Your task to perform on an android device: toggle notifications settings in the gmail app Image 0: 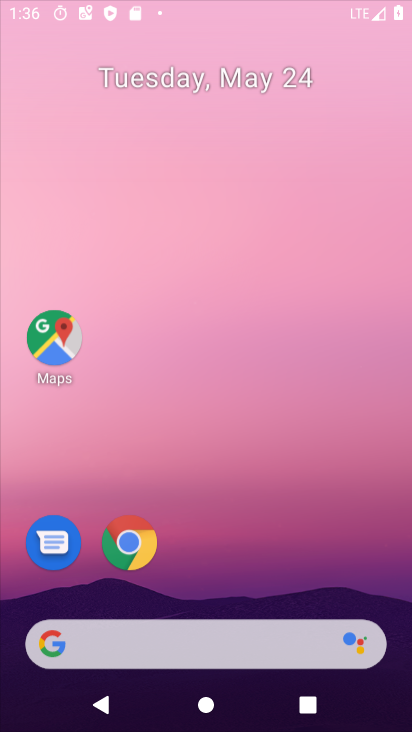
Step 0: drag from (319, 30) to (284, 0)
Your task to perform on an android device: toggle notifications settings in the gmail app Image 1: 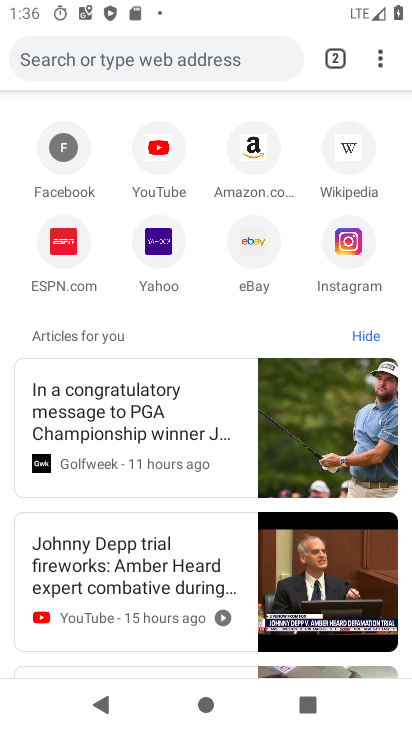
Step 1: press home button
Your task to perform on an android device: toggle notifications settings in the gmail app Image 2: 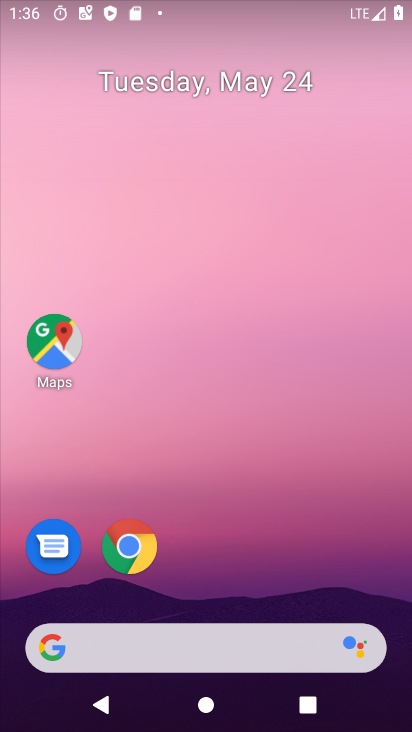
Step 2: drag from (202, 576) to (409, 43)
Your task to perform on an android device: toggle notifications settings in the gmail app Image 3: 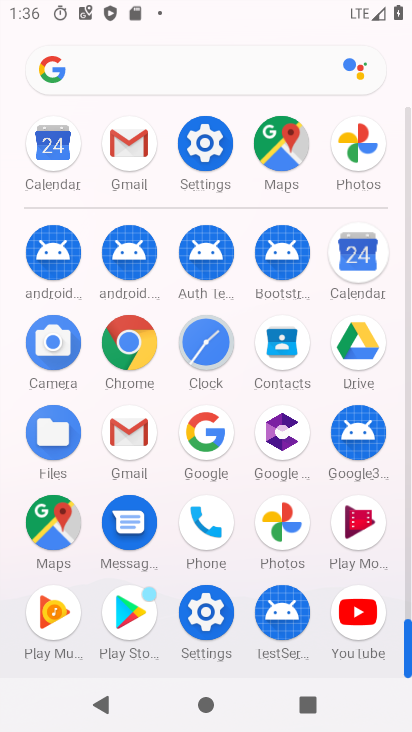
Step 3: click (119, 433)
Your task to perform on an android device: toggle notifications settings in the gmail app Image 4: 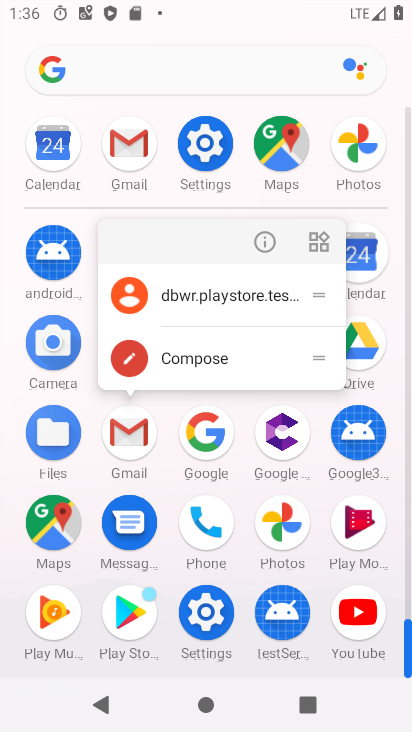
Step 4: click (194, 301)
Your task to perform on an android device: toggle notifications settings in the gmail app Image 5: 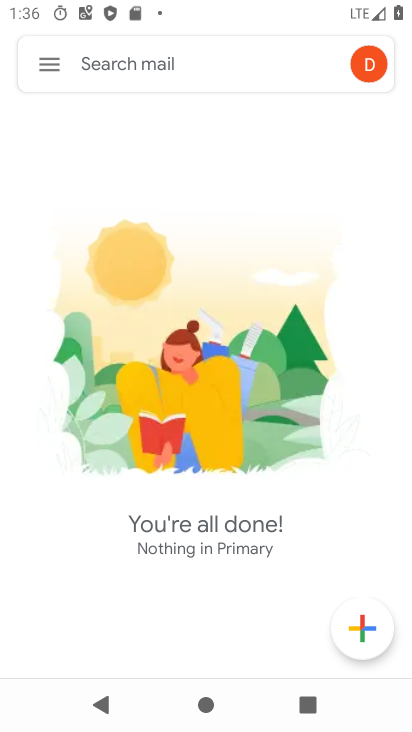
Step 5: click (44, 66)
Your task to perform on an android device: toggle notifications settings in the gmail app Image 6: 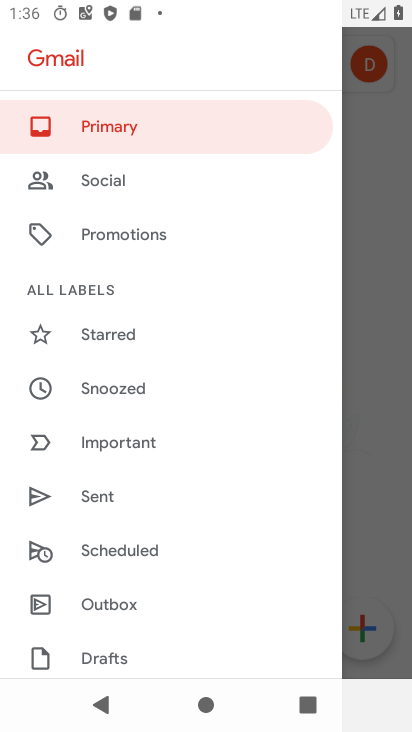
Step 6: drag from (156, 528) to (199, 52)
Your task to perform on an android device: toggle notifications settings in the gmail app Image 7: 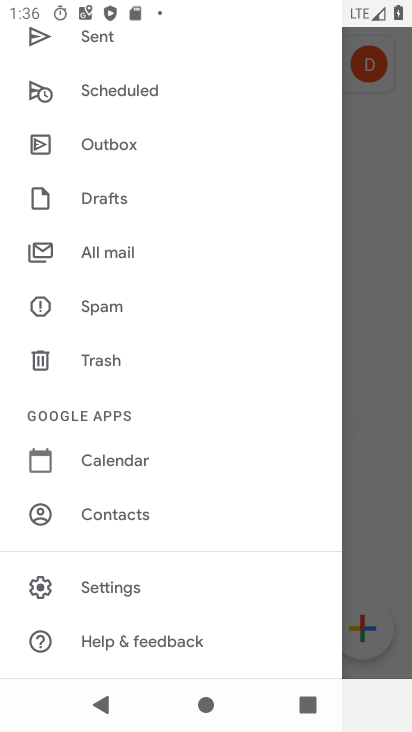
Step 7: click (130, 589)
Your task to perform on an android device: toggle notifications settings in the gmail app Image 8: 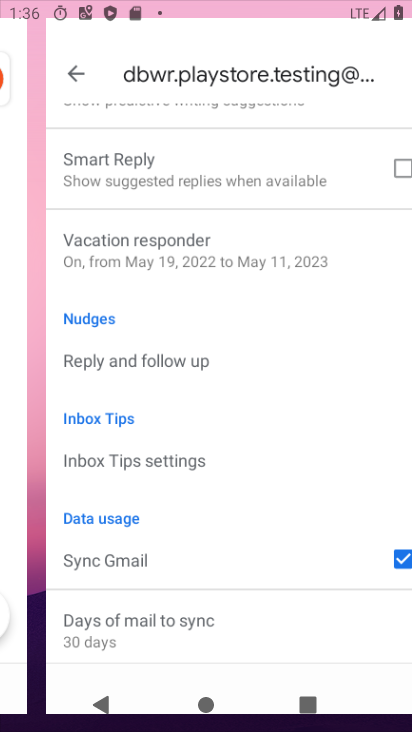
Step 8: drag from (113, 557) to (181, 137)
Your task to perform on an android device: toggle notifications settings in the gmail app Image 9: 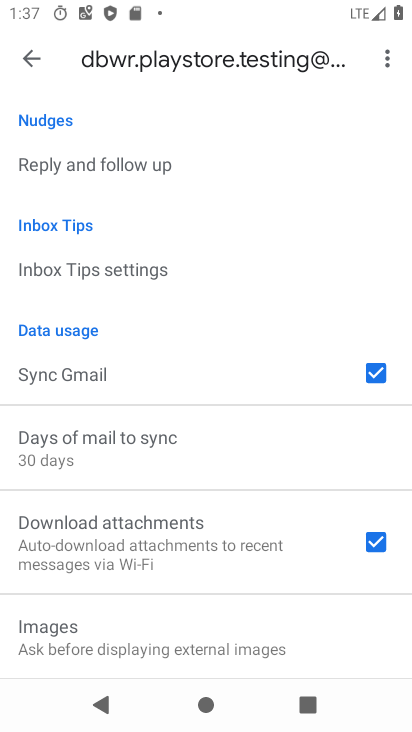
Step 9: drag from (217, 276) to (273, 726)
Your task to perform on an android device: toggle notifications settings in the gmail app Image 10: 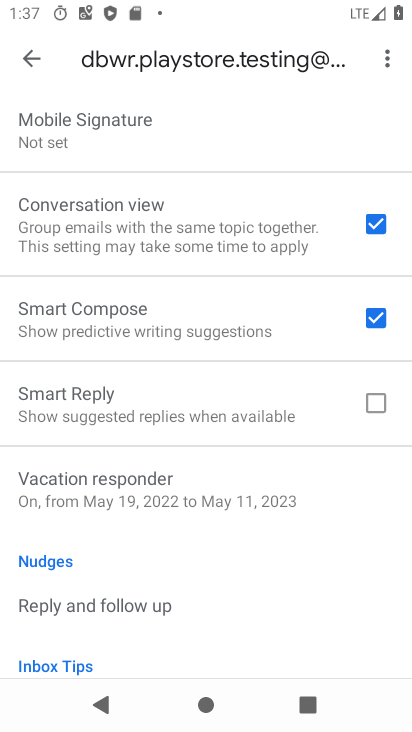
Step 10: drag from (223, 203) to (288, 673)
Your task to perform on an android device: toggle notifications settings in the gmail app Image 11: 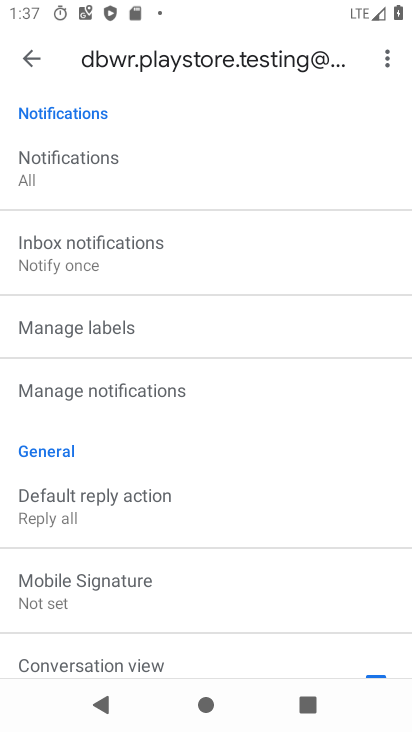
Step 11: click (142, 391)
Your task to perform on an android device: toggle notifications settings in the gmail app Image 12: 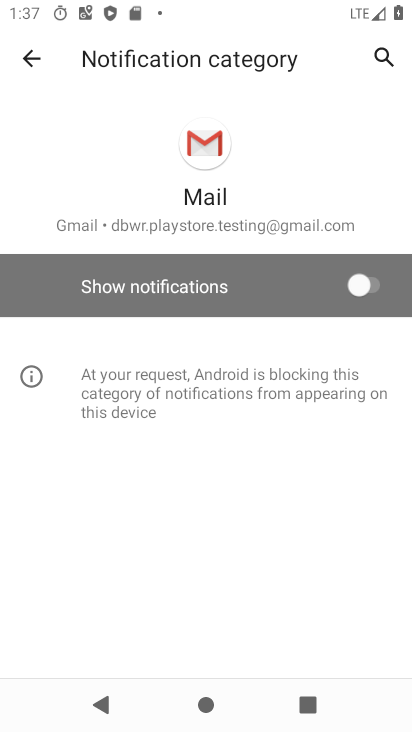
Step 12: click (358, 288)
Your task to perform on an android device: toggle notifications settings in the gmail app Image 13: 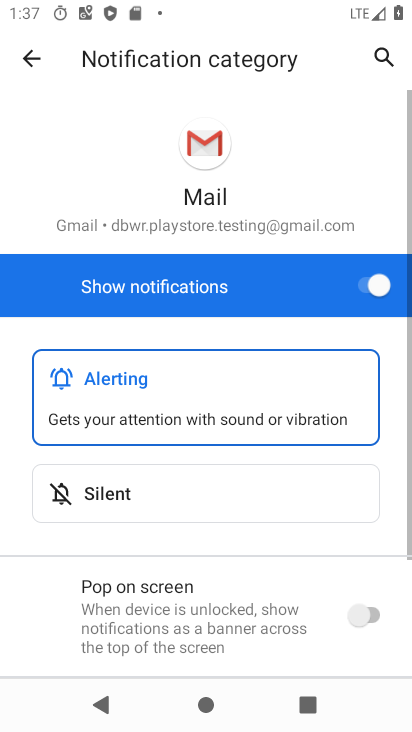
Step 13: task complete